Your task to perform on an android device: install app "Mercado Libre" Image 0: 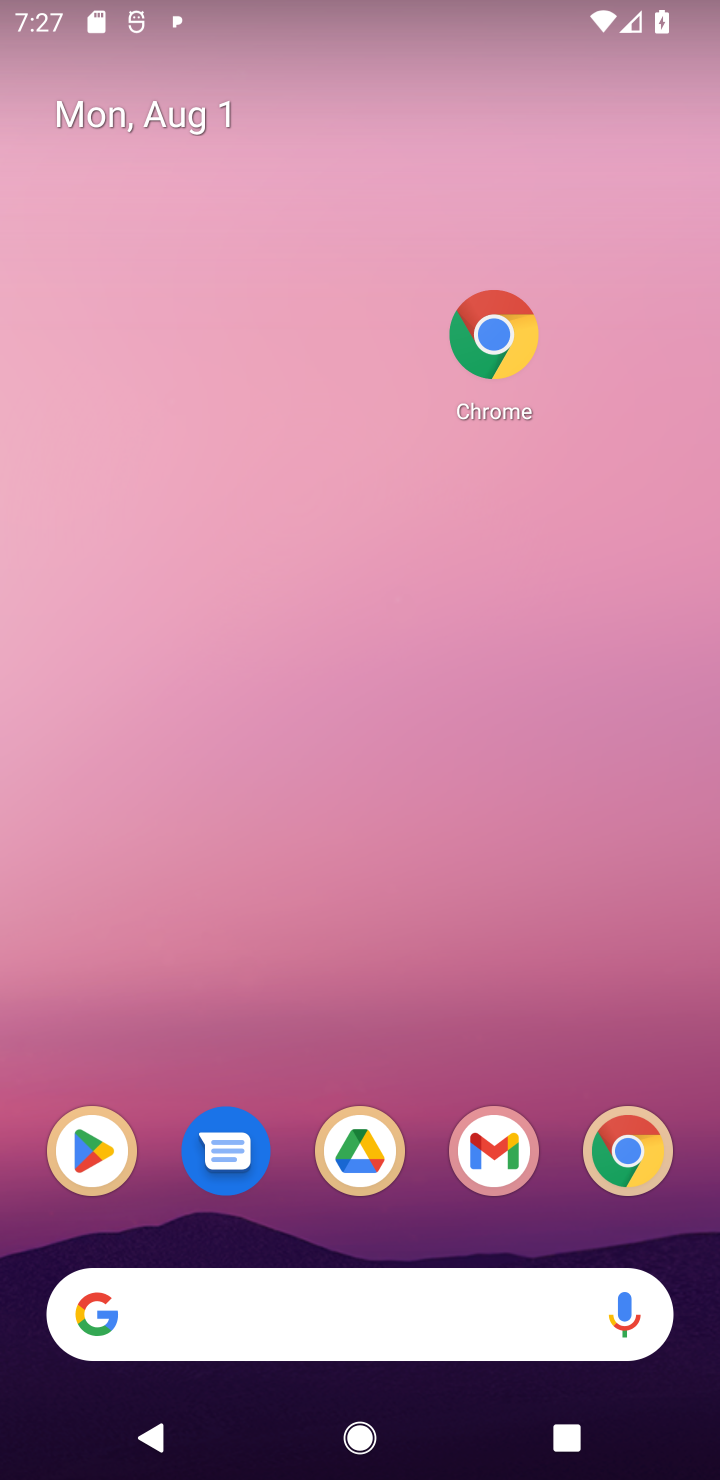
Step 0: click (84, 1145)
Your task to perform on an android device: install app "Mercado Libre" Image 1: 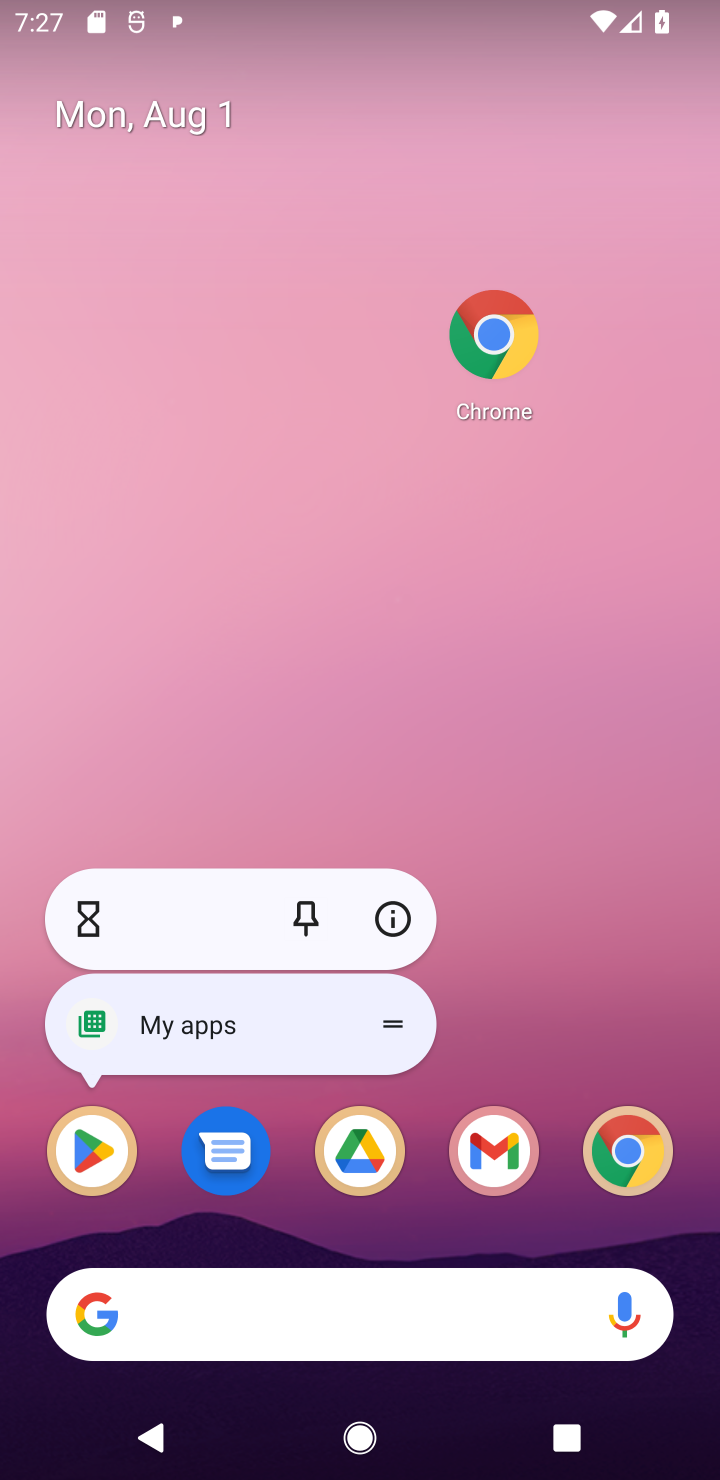
Step 1: click (93, 1166)
Your task to perform on an android device: install app "Mercado Libre" Image 2: 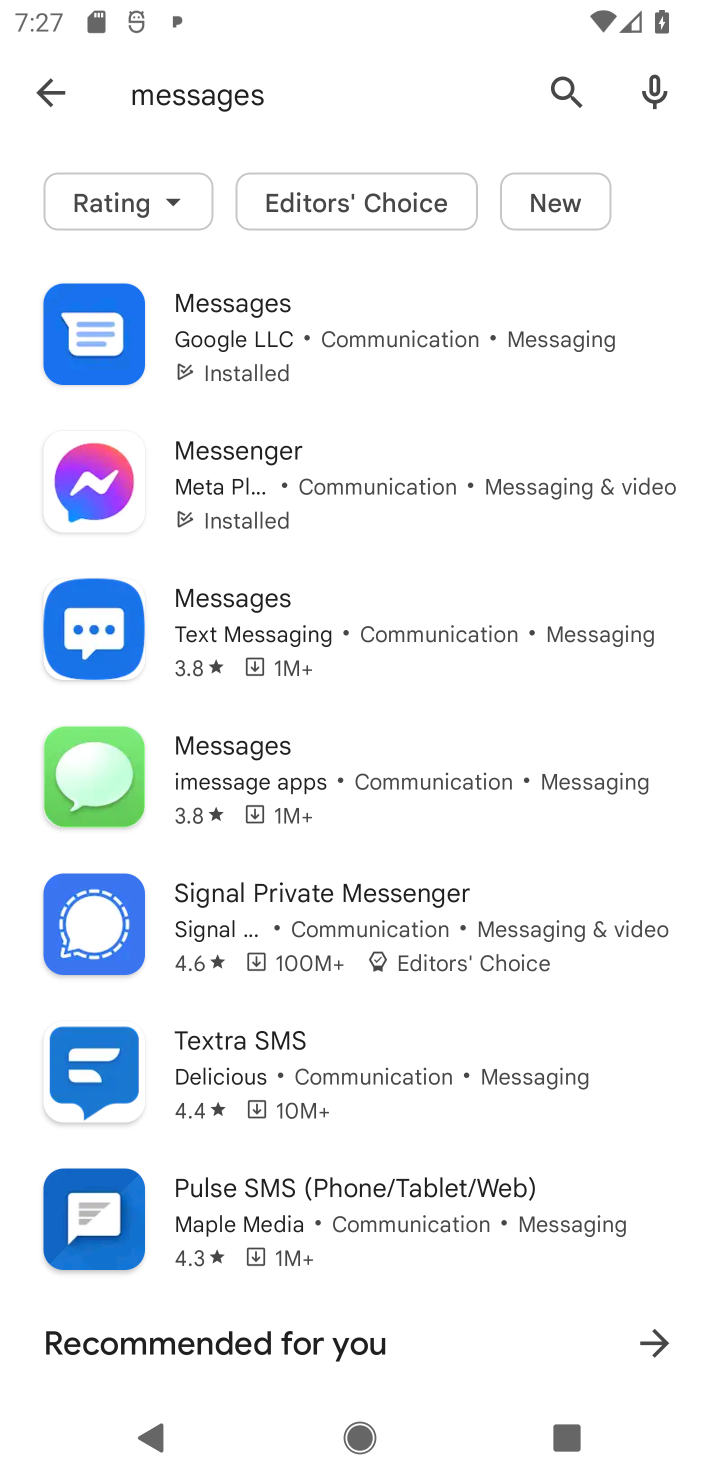
Step 2: click (558, 81)
Your task to perform on an android device: install app "Mercado Libre" Image 3: 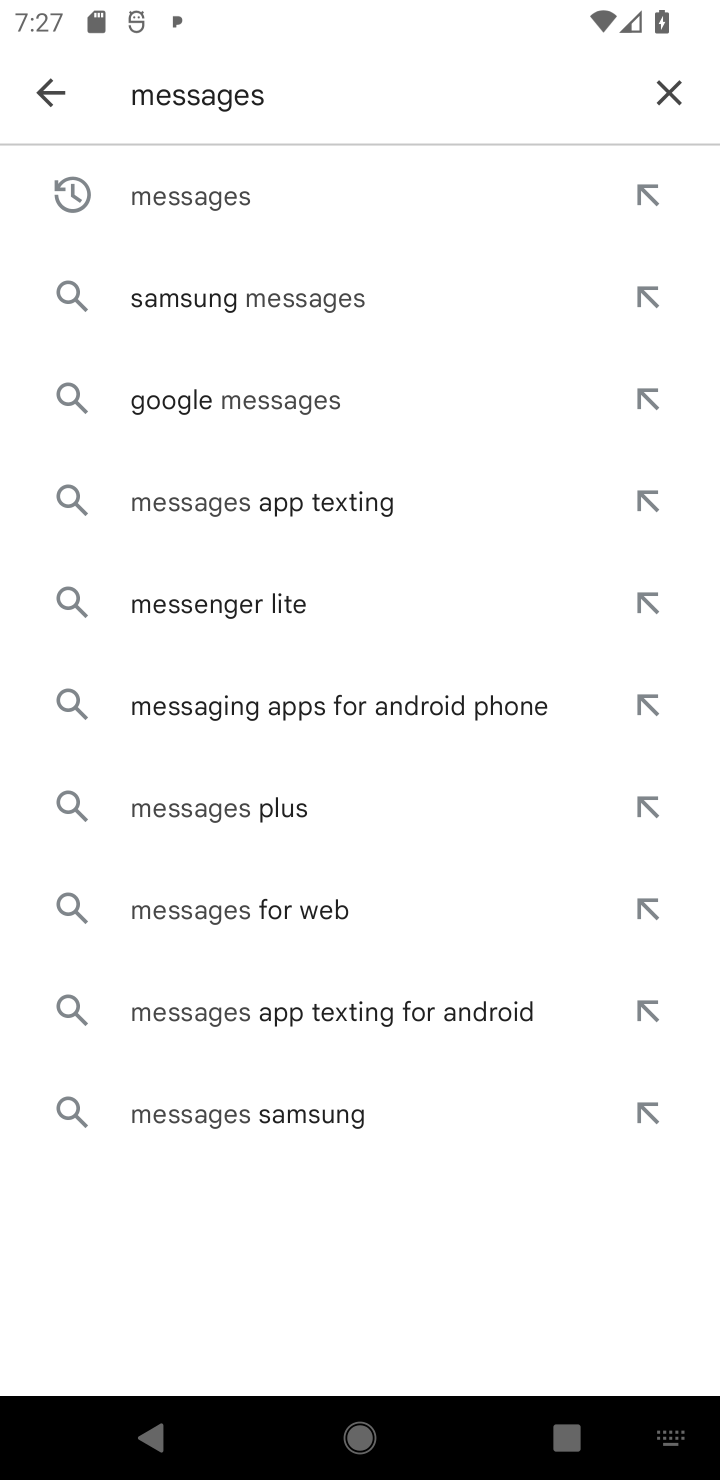
Step 3: click (670, 98)
Your task to perform on an android device: install app "Mercado Libre" Image 4: 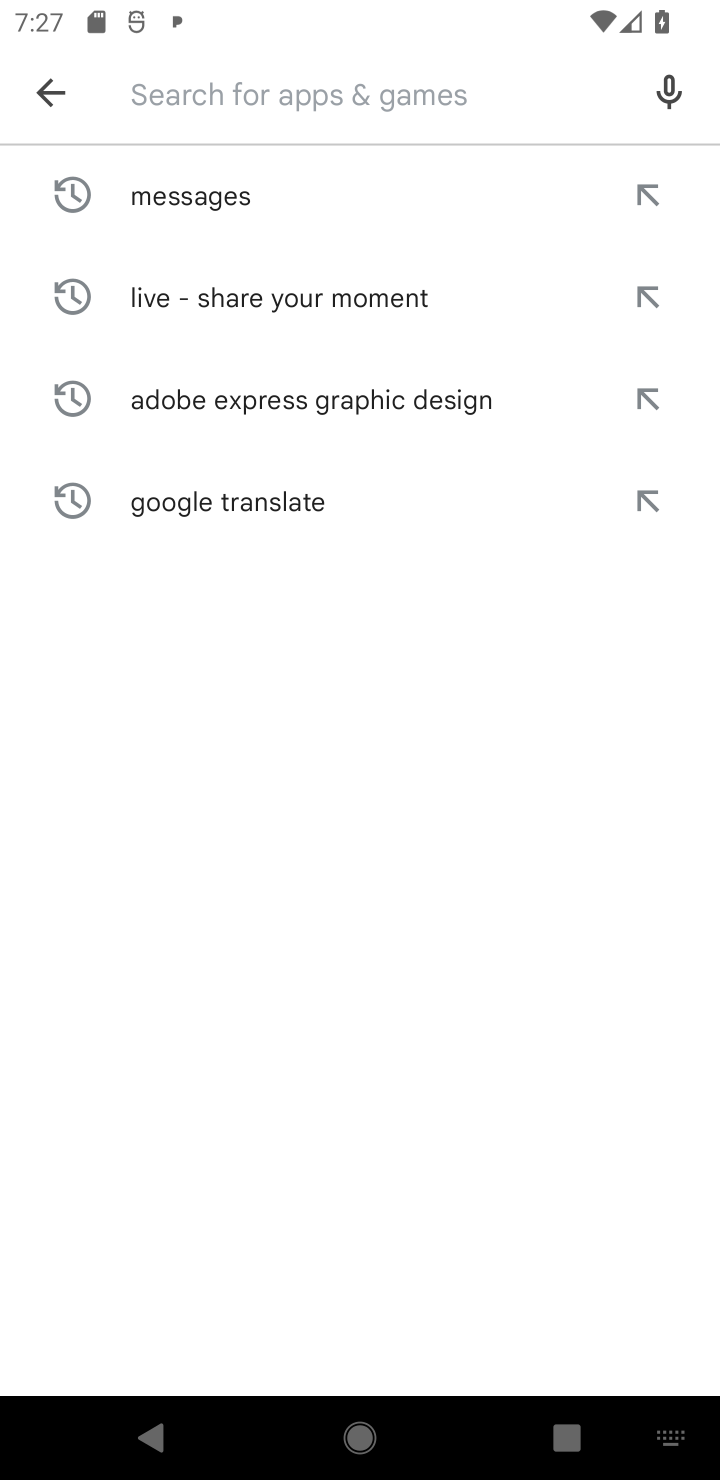
Step 4: type "Mercado Libre"
Your task to perform on an android device: install app "Mercado Libre" Image 5: 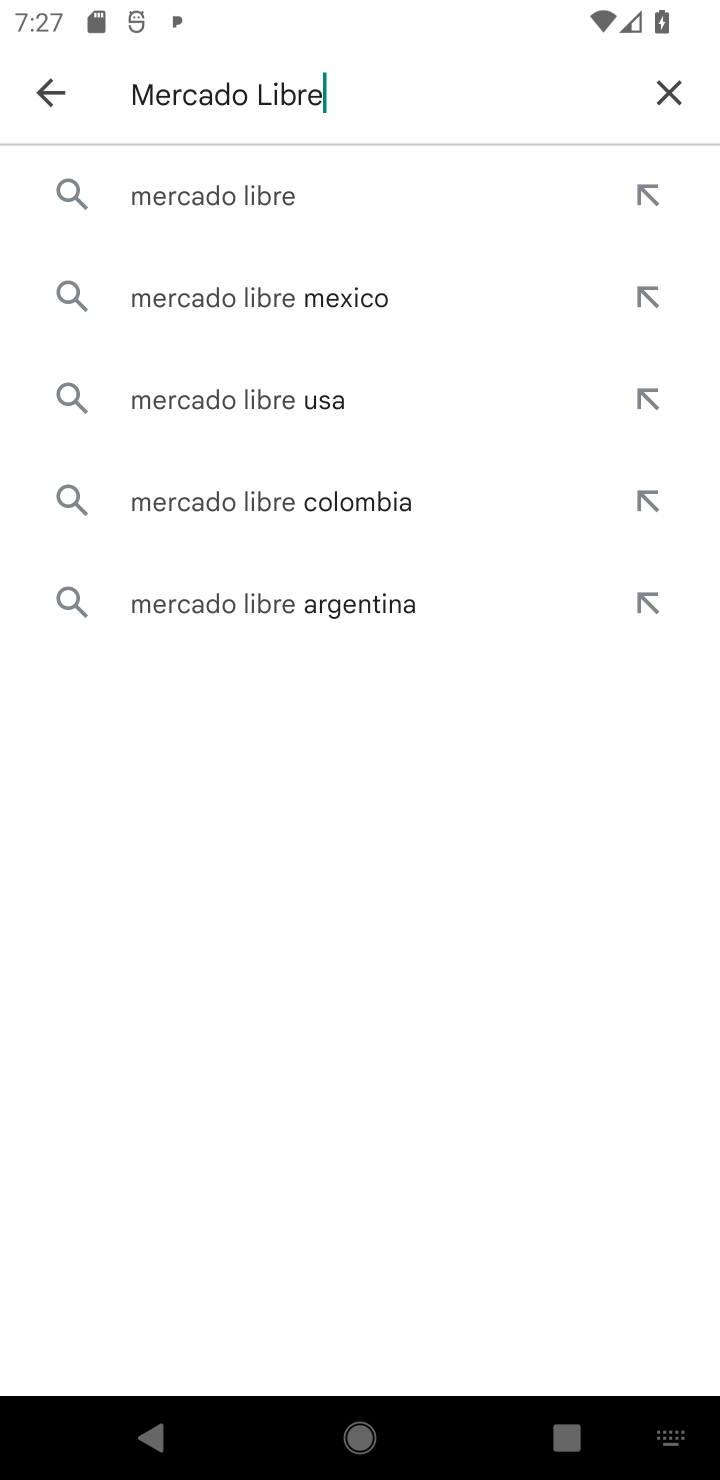
Step 5: click (155, 193)
Your task to perform on an android device: install app "Mercado Libre" Image 6: 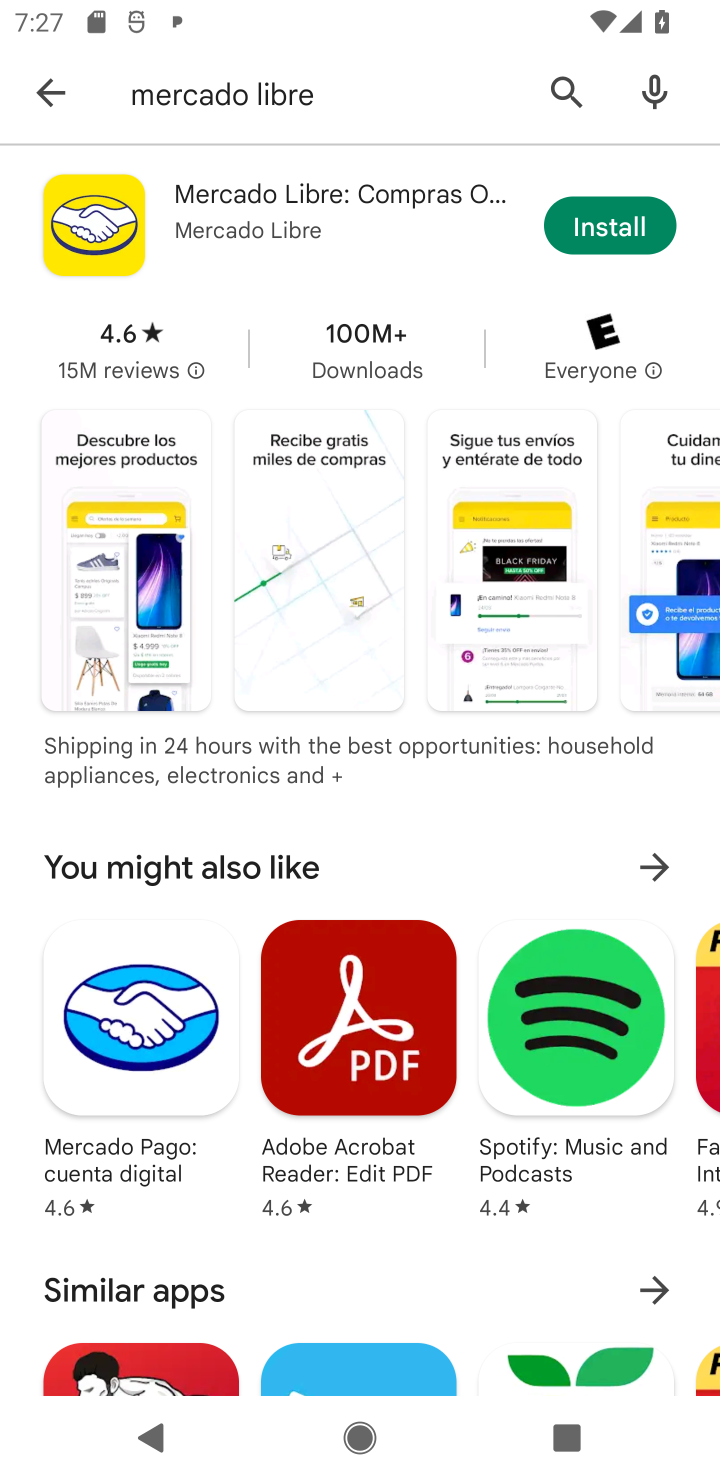
Step 6: click (624, 242)
Your task to perform on an android device: install app "Mercado Libre" Image 7: 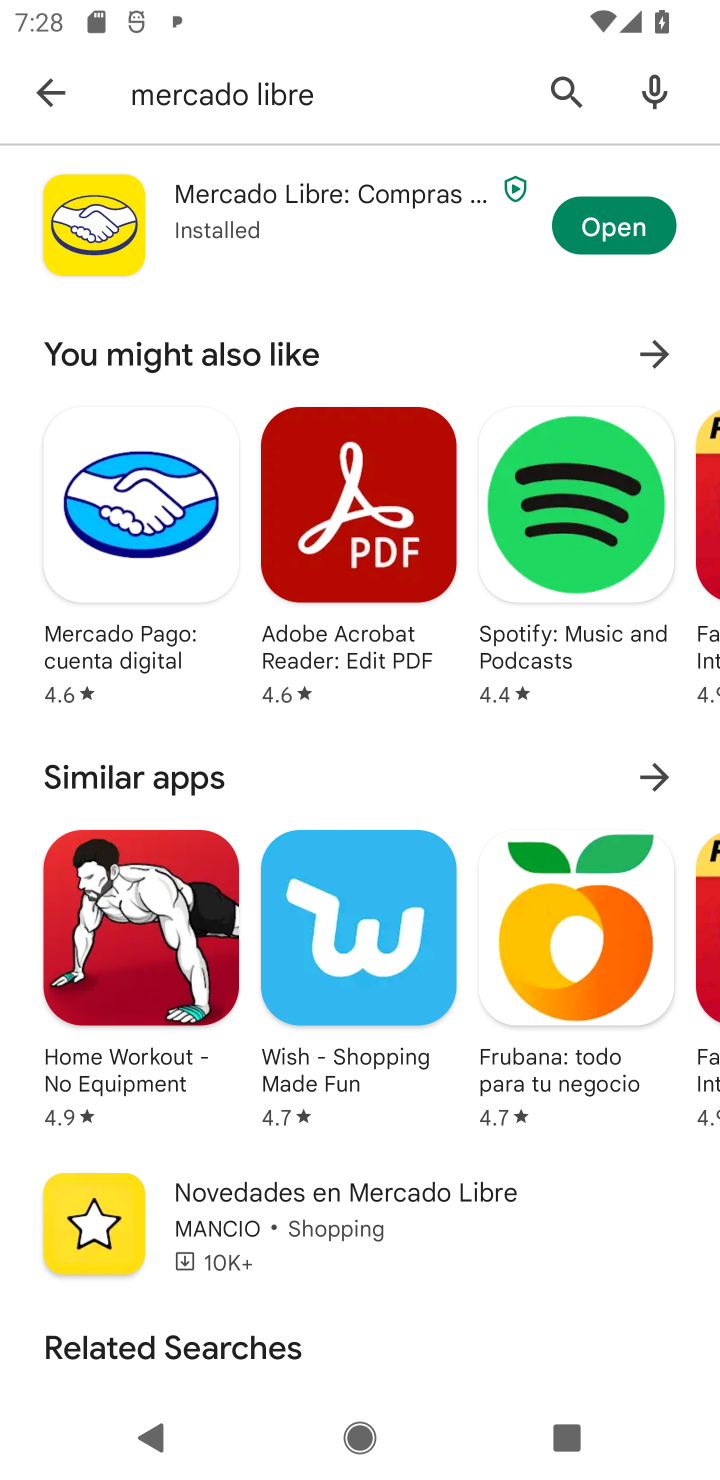
Step 7: task complete